Your task to perform on an android device: toggle airplane mode Image 0: 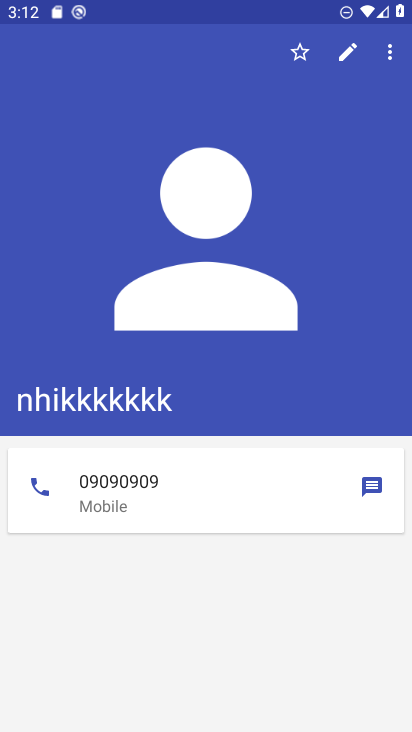
Step 0: press home button
Your task to perform on an android device: toggle airplane mode Image 1: 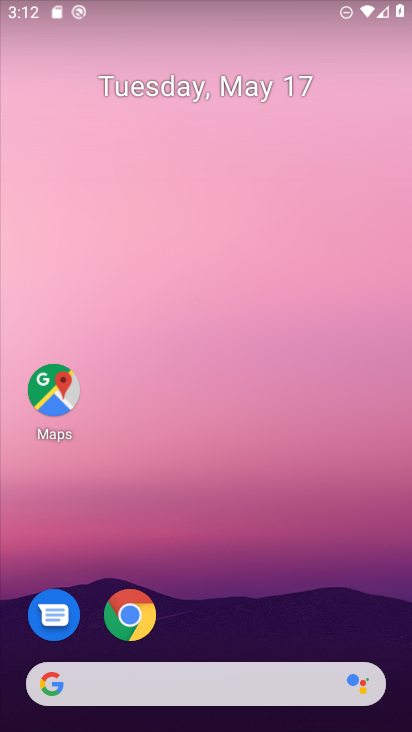
Step 1: drag from (221, 723) to (229, 189)
Your task to perform on an android device: toggle airplane mode Image 2: 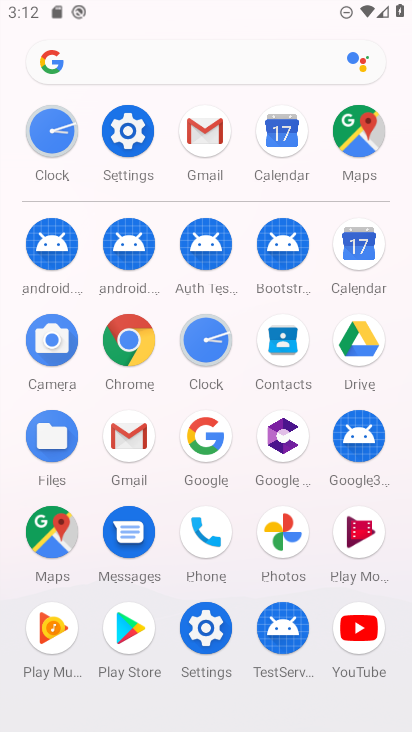
Step 2: click (122, 128)
Your task to perform on an android device: toggle airplane mode Image 3: 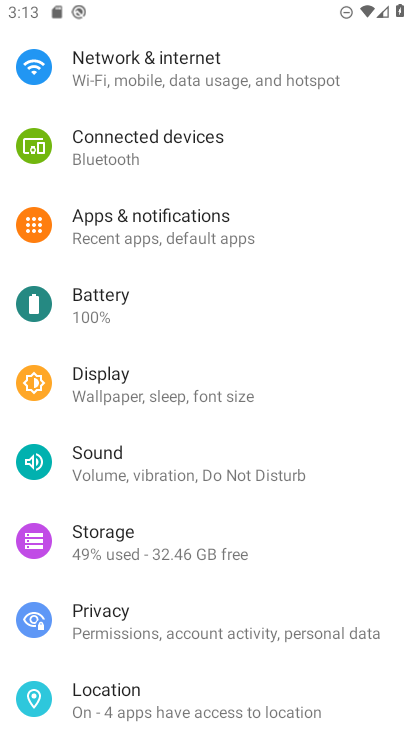
Step 3: drag from (179, 221) to (201, 441)
Your task to perform on an android device: toggle airplane mode Image 4: 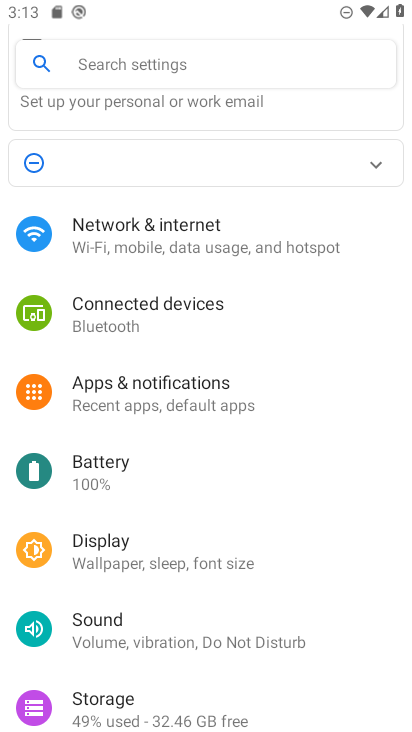
Step 4: click (188, 233)
Your task to perform on an android device: toggle airplane mode Image 5: 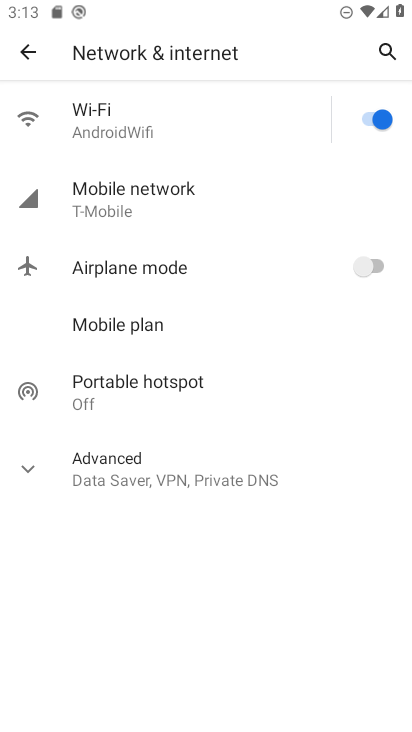
Step 5: click (380, 261)
Your task to perform on an android device: toggle airplane mode Image 6: 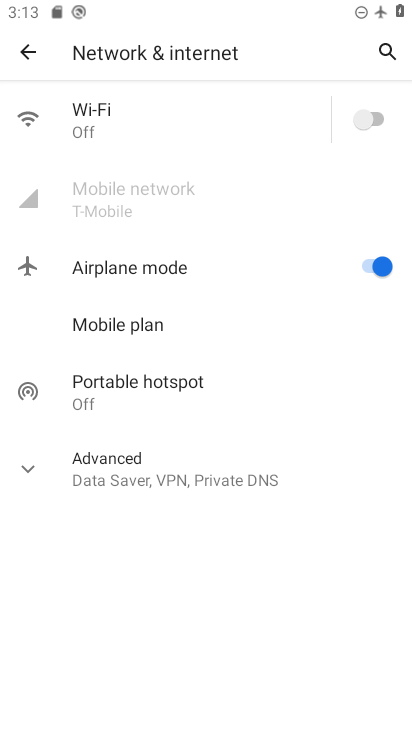
Step 6: task complete